Your task to perform on an android device: Go to Google Image 0: 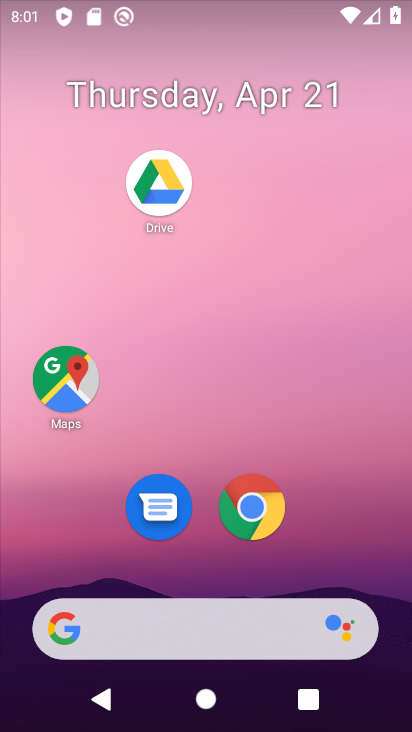
Step 0: drag from (358, 528) to (345, 139)
Your task to perform on an android device: Go to Google Image 1: 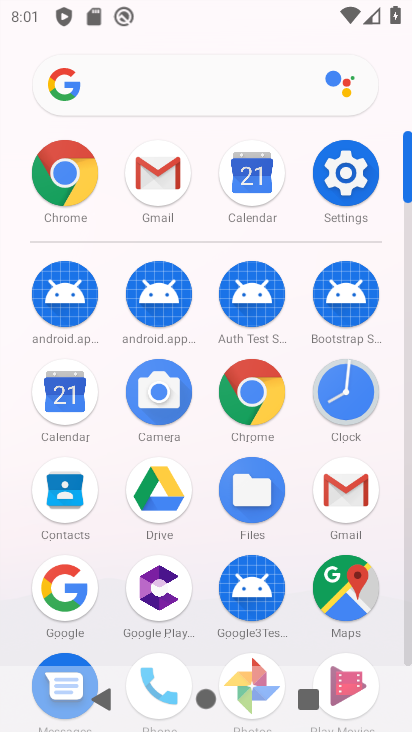
Step 1: drag from (389, 519) to (393, 142)
Your task to perform on an android device: Go to Google Image 2: 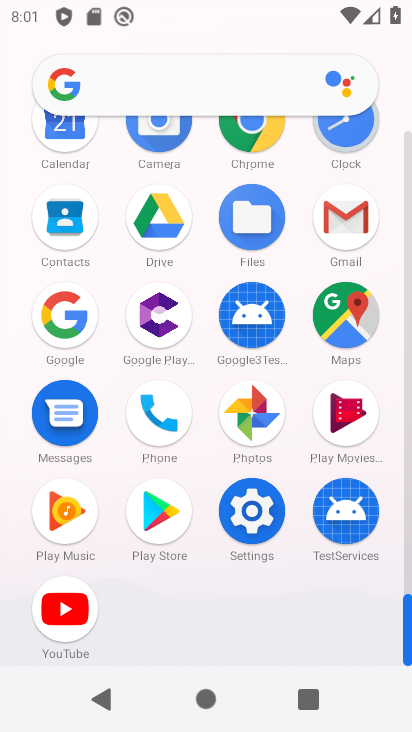
Step 2: click (58, 328)
Your task to perform on an android device: Go to Google Image 3: 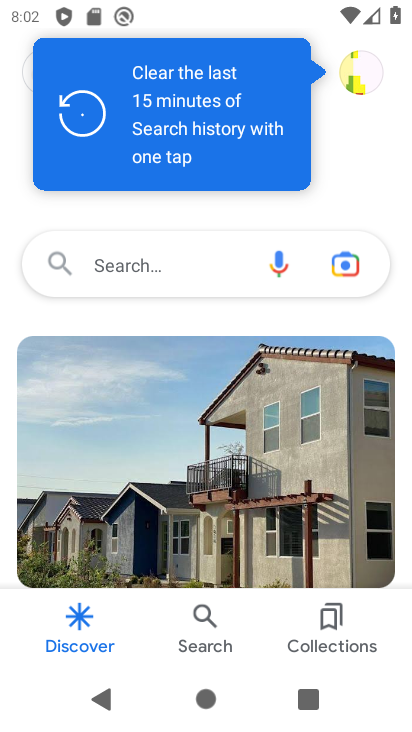
Step 3: task complete